Your task to perform on an android device: Add usb-c to the cart on target Image 0: 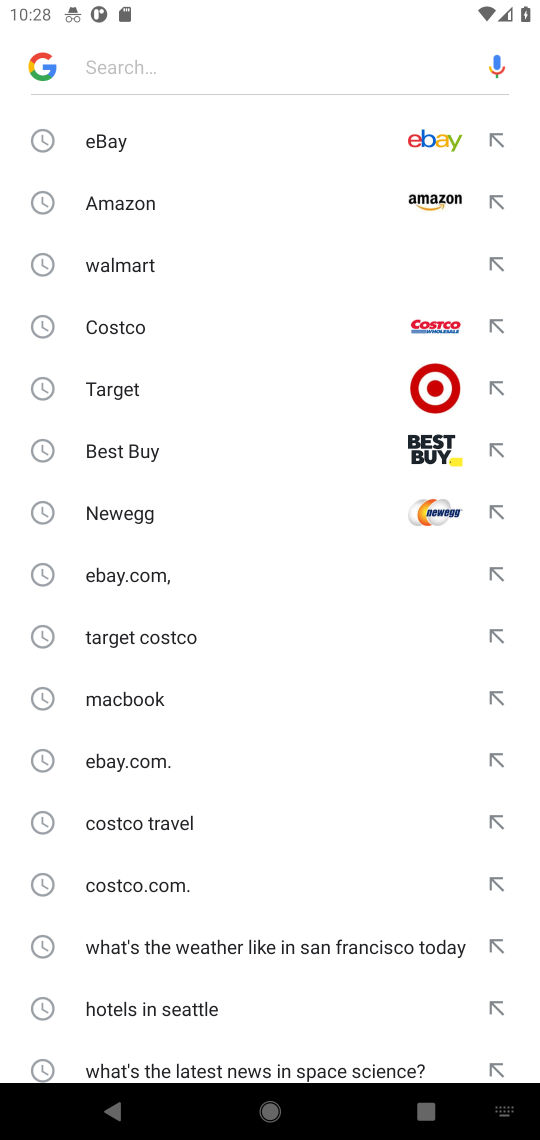
Step 0: click (122, 391)
Your task to perform on an android device: Add usb-c to the cart on target Image 1: 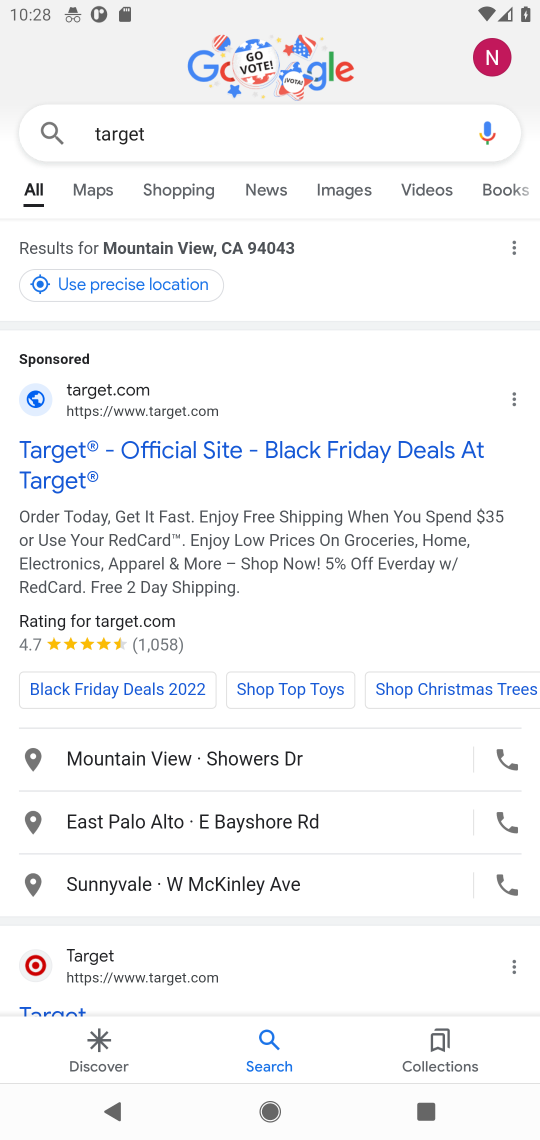
Step 1: drag from (70, 760) to (135, 337)
Your task to perform on an android device: Add usb-c to the cart on target Image 2: 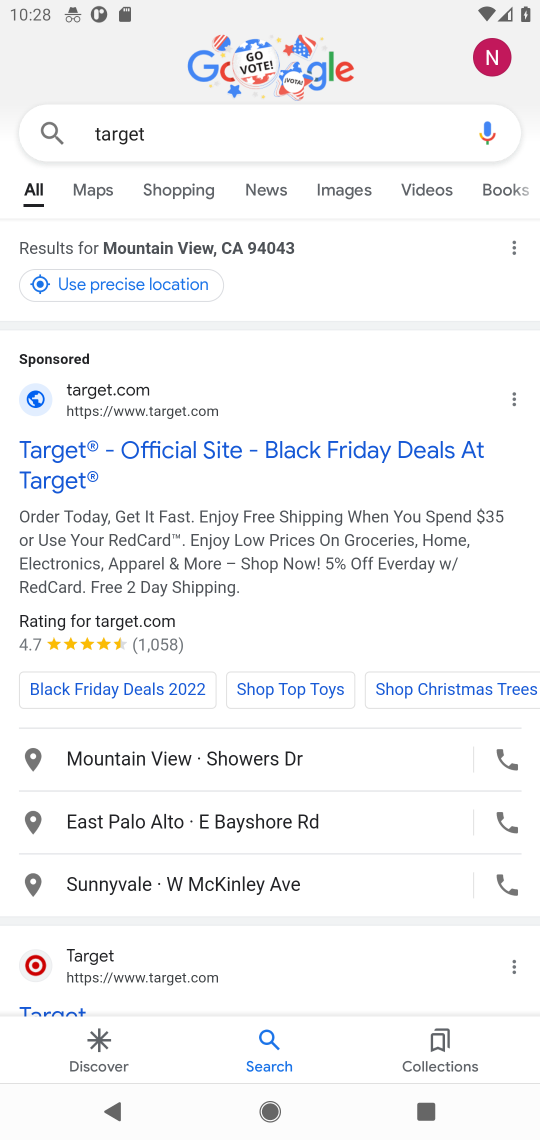
Step 2: drag from (111, 703) to (155, 329)
Your task to perform on an android device: Add usb-c to the cart on target Image 3: 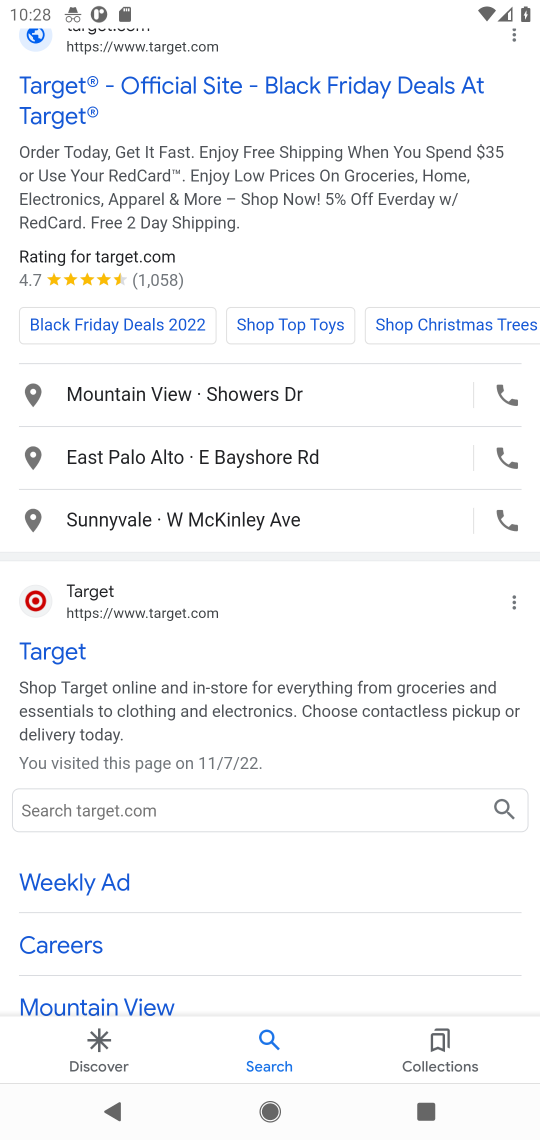
Step 3: click (49, 649)
Your task to perform on an android device: Add usb-c to the cart on target Image 4: 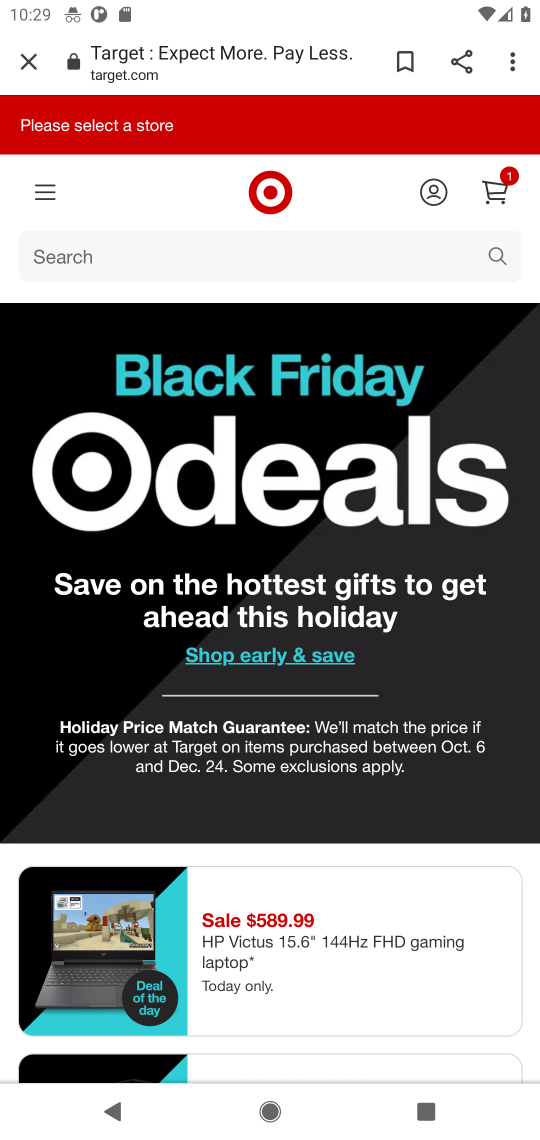
Step 4: click (496, 257)
Your task to perform on an android device: Add usb-c to the cart on target Image 5: 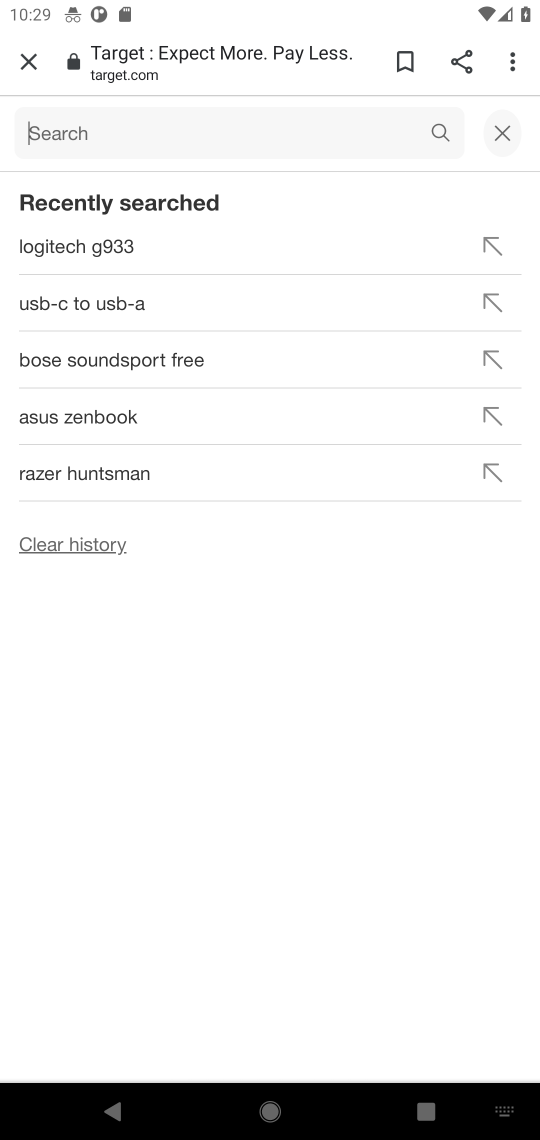
Step 5: type "usb-c "
Your task to perform on an android device: Add usb-c to the cart on target Image 6: 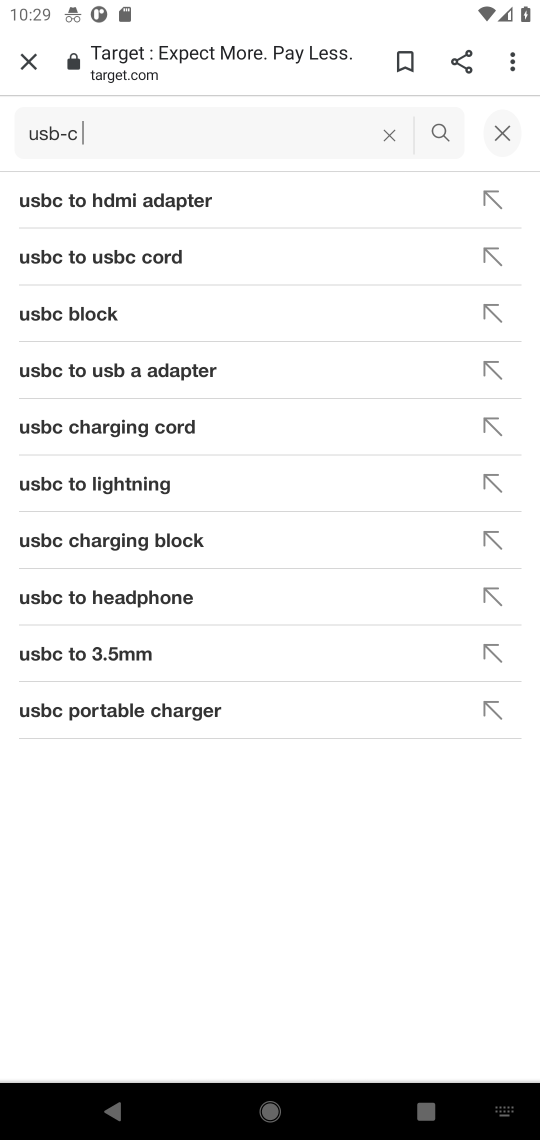
Step 6: click (445, 135)
Your task to perform on an android device: Add usb-c to the cart on target Image 7: 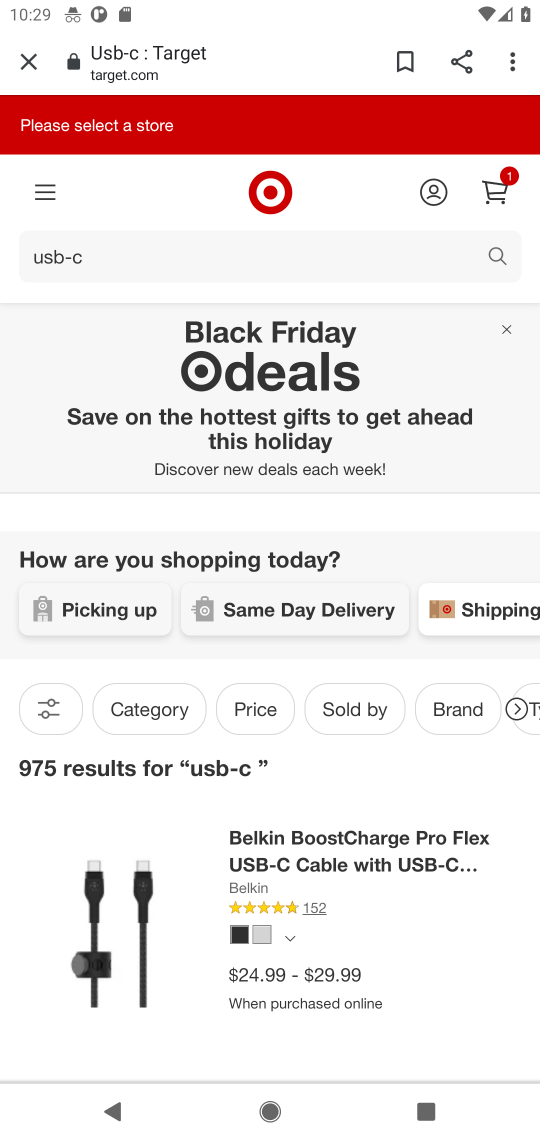
Step 7: click (165, 969)
Your task to perform on an android device: Add usb-c to the cart on target Image 8: 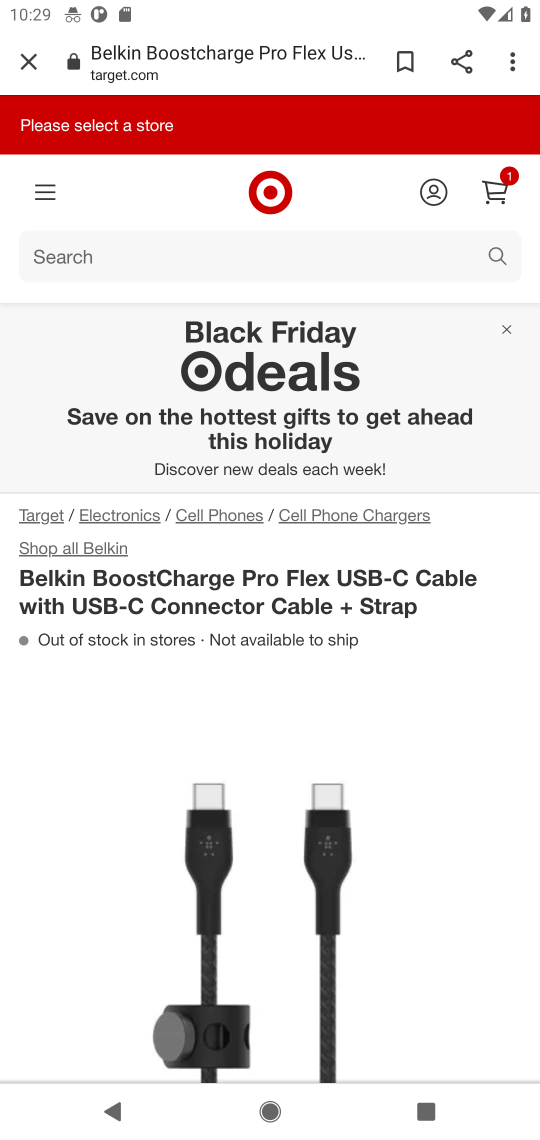
Step 8: drag from (289, 884) to (283, 397)
Your task to perform on an android device: Add usb-c to the cart on target Image 9: 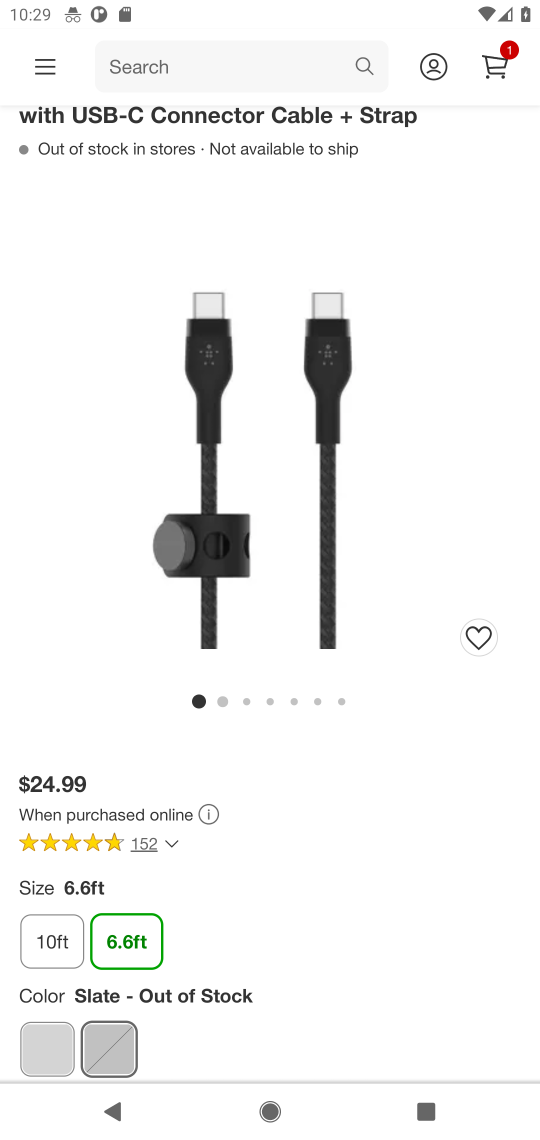
Step 9: drag from (318, 794) to (320, 400)
Your task to perform on an android device: Add usb-c to the cart on target Image 10: 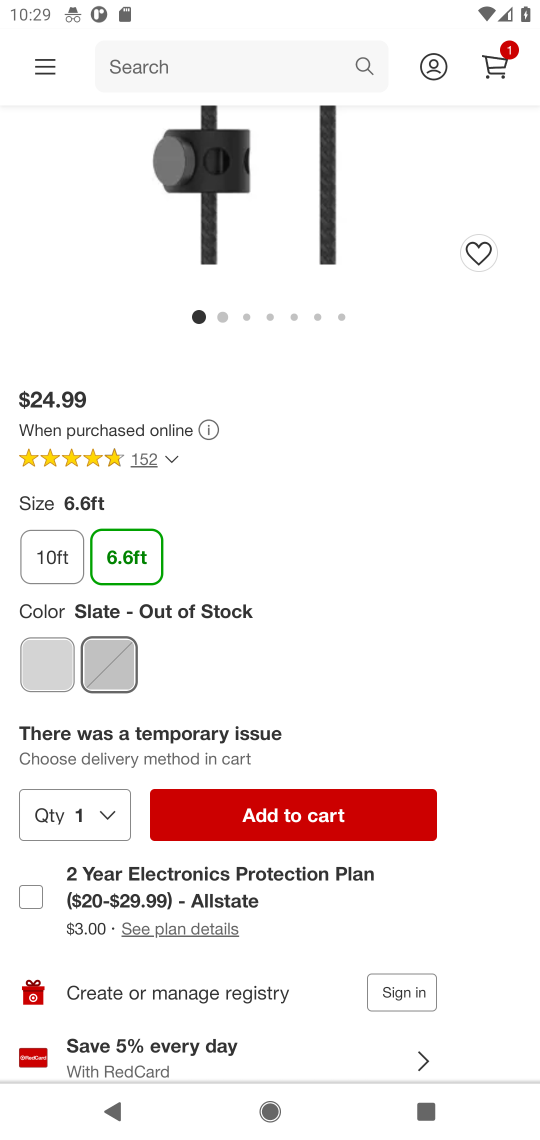
Step 10: click (303, 823)
Your task to perform on an android device: Add usb-c to the cart on target Image 11: 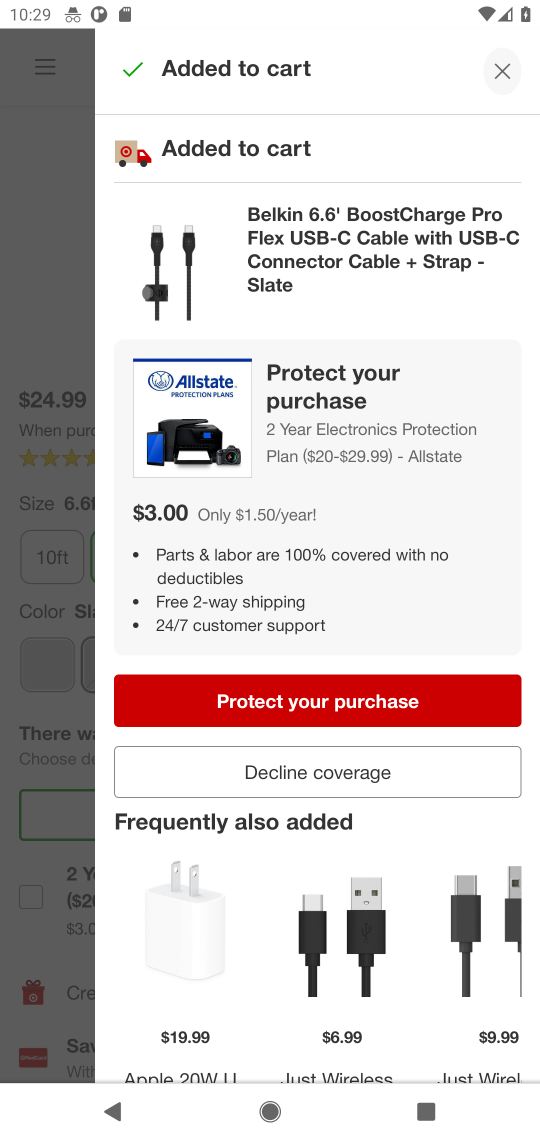
Step 11: task complete